Your task to perform on an android device: Go to Reddit.com Image 0: 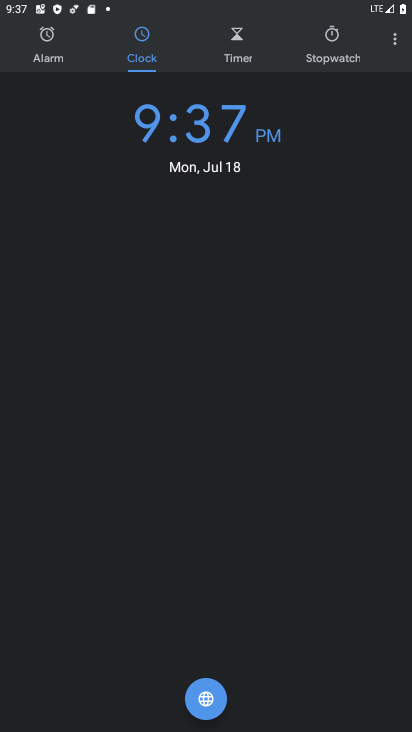
Step 0: drag from (198, 661) to (185, 428)
Your task to perform on an android device: Go to Reddit.com Image 1: 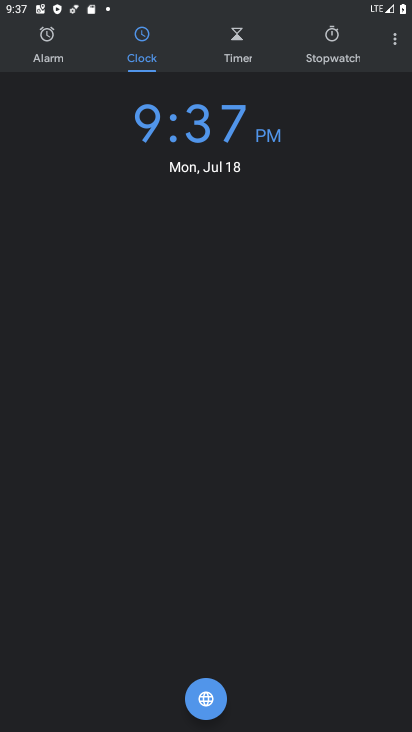
Step 1: press home button
Your task to perform on an android device: Go to Reddit.com Image 2: 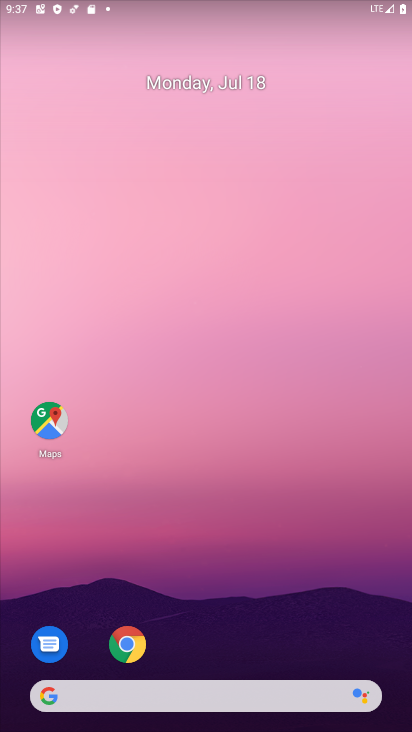
Step 2: drag from (207, 667) to (107, 4)
Your task to perform on an android device: Go to Reddit.com Image 3: 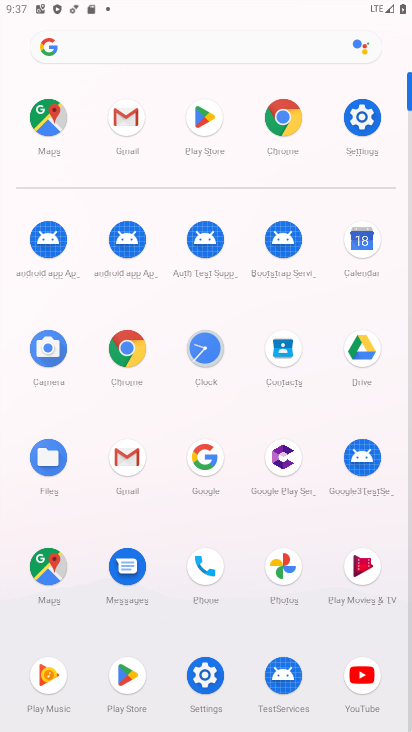
Step 3: click (126, 355)
Your task to perform on an android device: Go to Reddit.com Image 4: 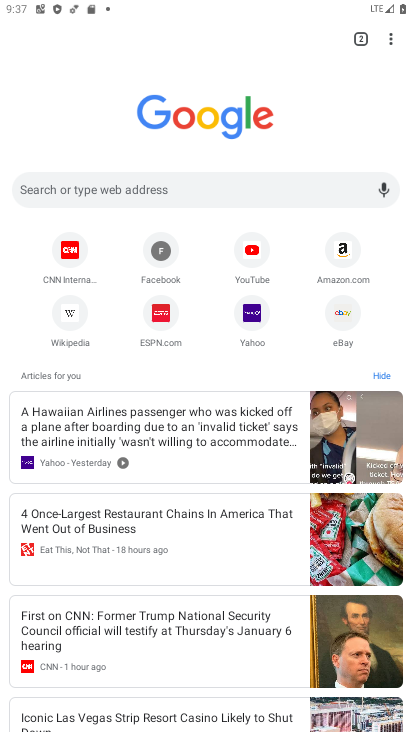
Step 4: click (182, 191)
Your task to perform on an android device: Go to Reddit.com Image 5: 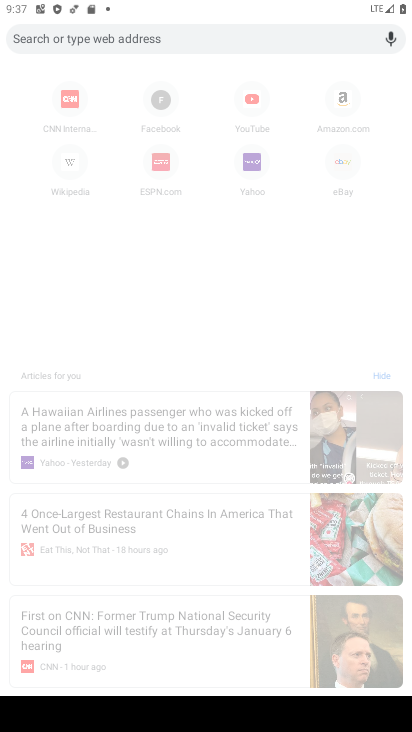
Step 5: type "Reddit.com"
Your task to perform on an android device: Go to Reddit.com Image 6: 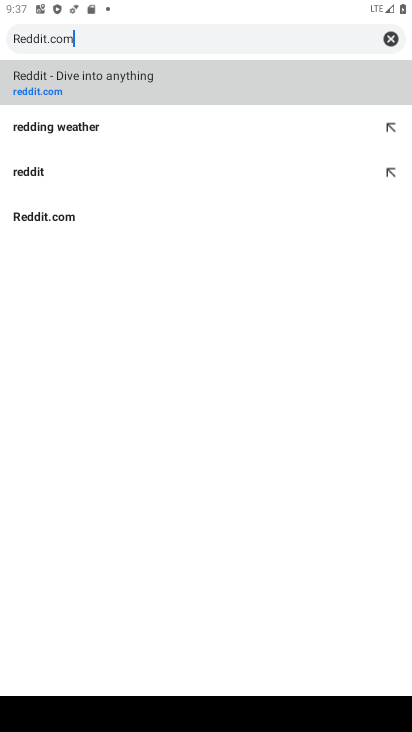
Step 6: type ""
Your task to perform on an android device: Go to Reddit.com Image 7: 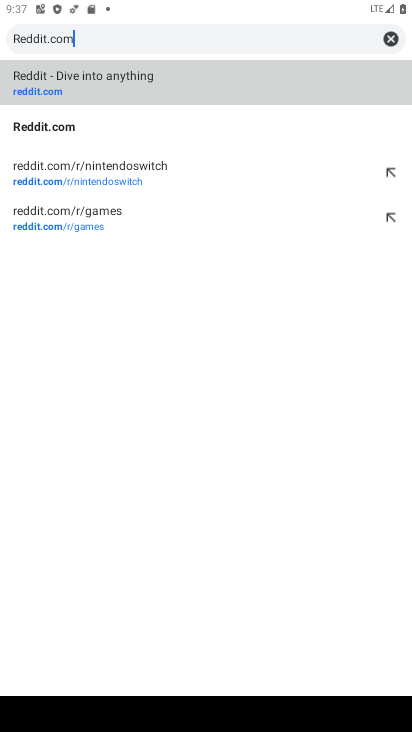
Step 7: click (68, 79)
Your task to perform on an android device: Go to Reddit.com Image 8: 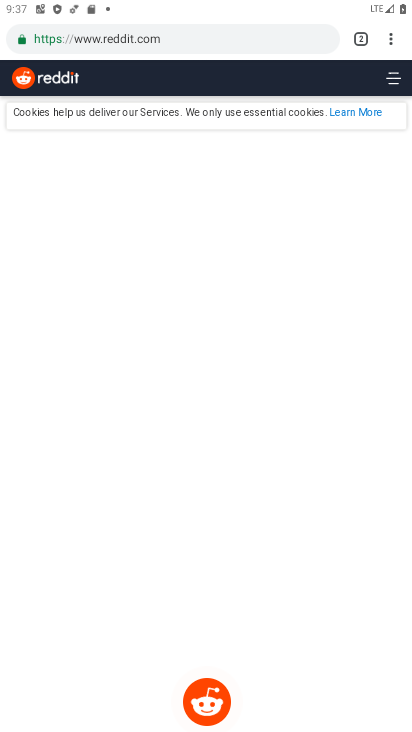
Step 8: task complete